Your task to perform on an android device: Open Wikipedia Image 0: 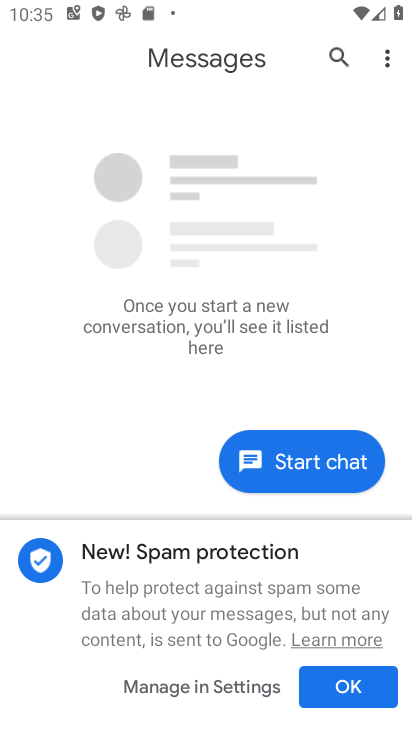
Step 0: press home button
Your task to perform on an android device: Open Wikipedia Image 1: 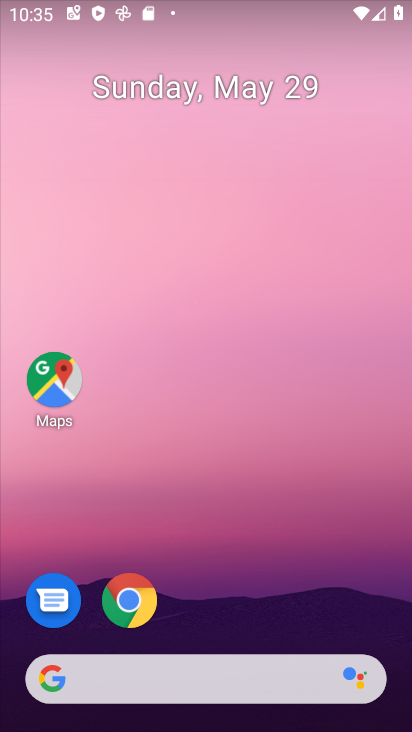
Step 1: click (123, 603)
Your task to perform on an android device: Open Wikipedia Image 2: 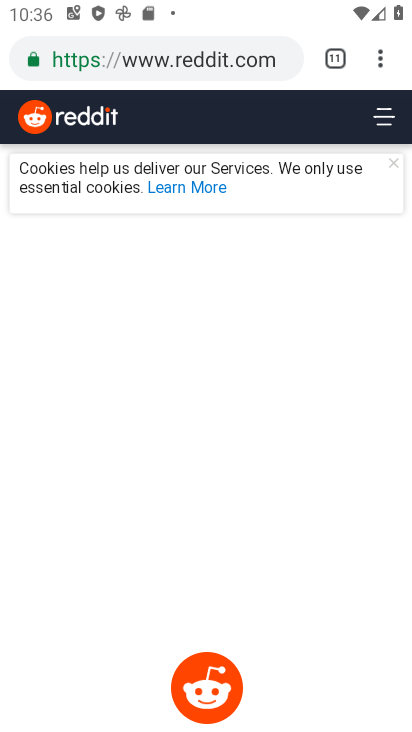
Step 2: click (381, 64)
Your task to perform on an android device: Open Wikipedia Image 3: 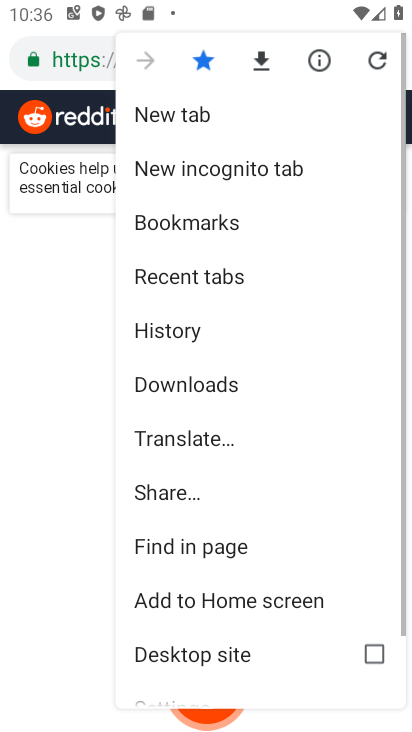
Step 3: click (166, 114)
Your task to perform on an android device: Open Wikipedia Image 4: 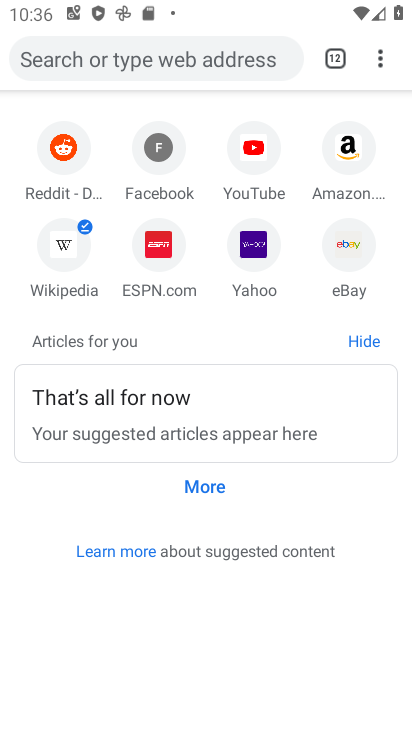
Step 4: click (64, 238)
Your task to perform on an android device: Open Wikipedia Image 5: 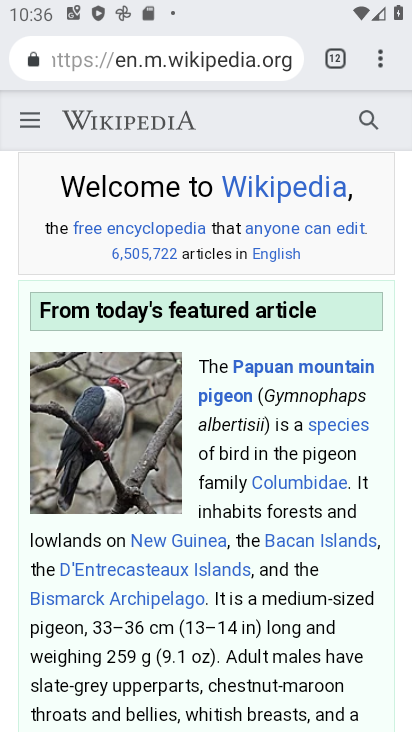
Step 5: task complete